Your task to perform on an android device: Do I have any events today? Image 0: 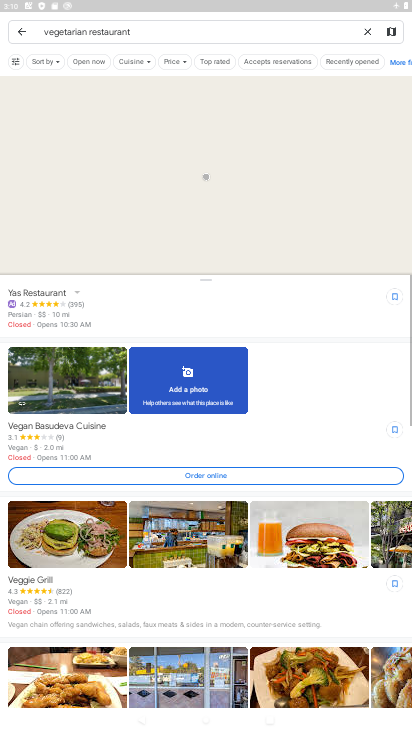
Step 0: press home button
Your task to perform on an android device: Do I have any events today? Image 1: 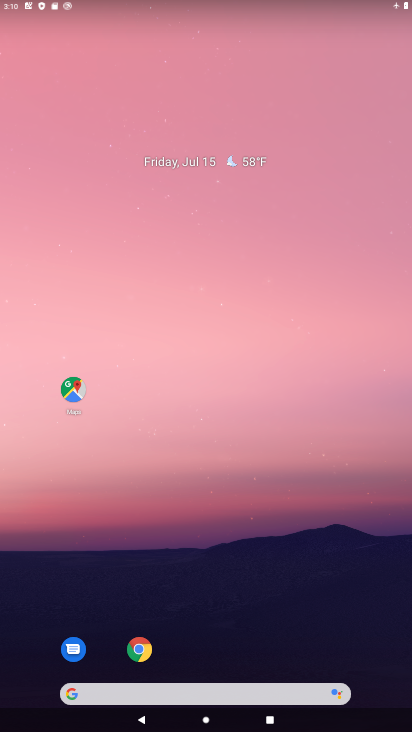
Step 1: drag from (255, 699) to (245, 137)
Your task to perform on an android device: Do I have any events today? Image 2: 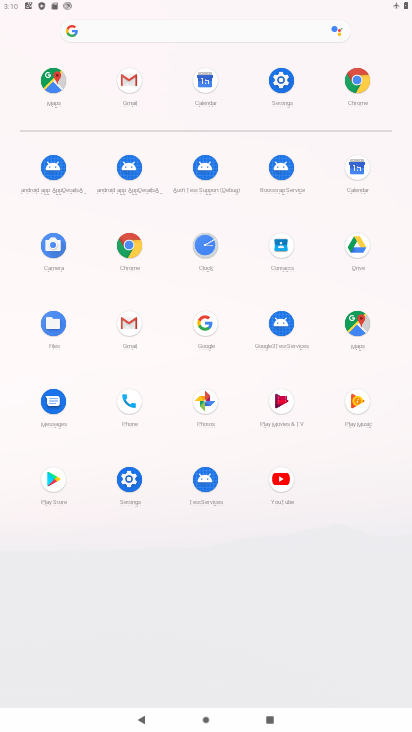
Step 2: click (358, 169)
Your task to perform on an android device: Do I have any events today? Image 3: 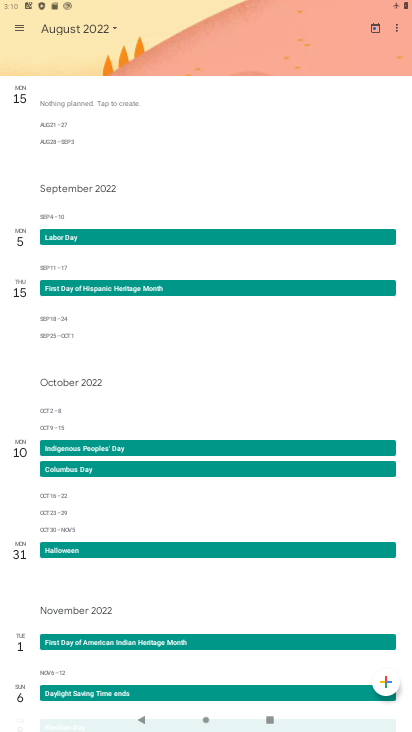
Step 3: click (111, 25)
Your task to perform on an android device: Do I have any events today? Image 4: 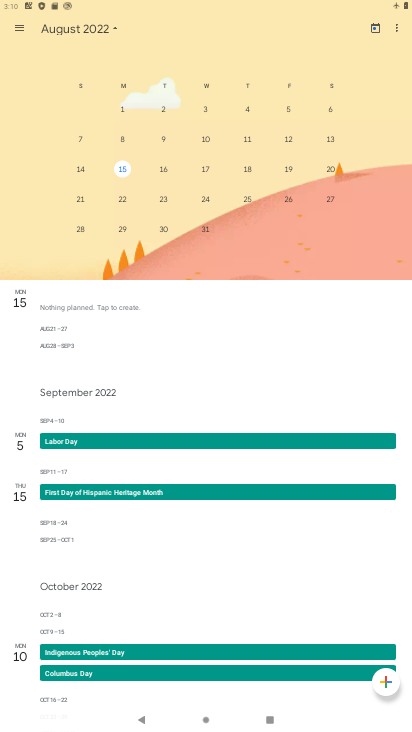
Step 4: drag from (81, 172) to (405, 335)
Your task to perform on an android device: Do I have any events today? Image 5: 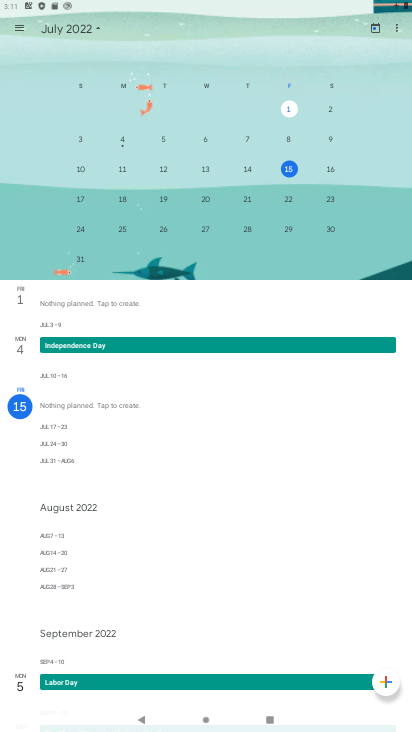
Step 5: click (286, 168)
Your task to perform on an android device: Do I have any events today? Image 6: 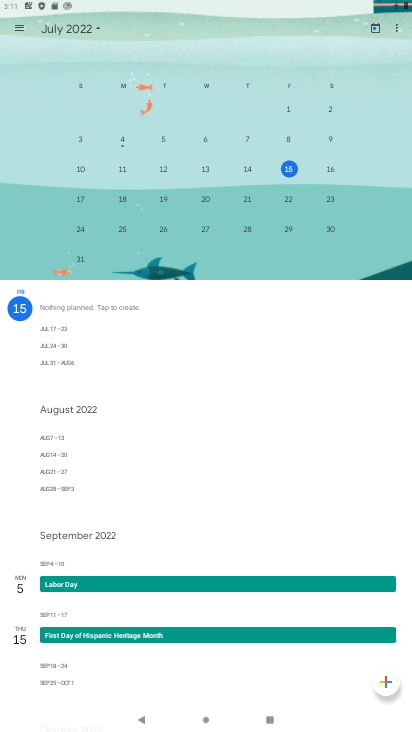
Step 6: click (18, 23)
Your task to perform on an android device: Do I have any events today? Image 7: 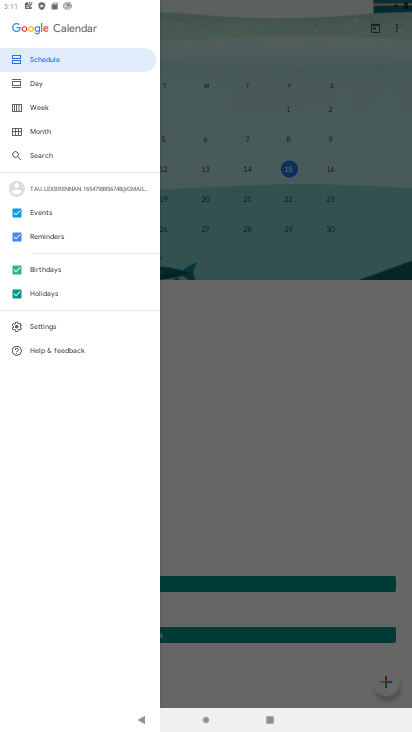
Step 7: click (21, 294)
Your task to perform on an android device: Do I have any events today? Image 8: 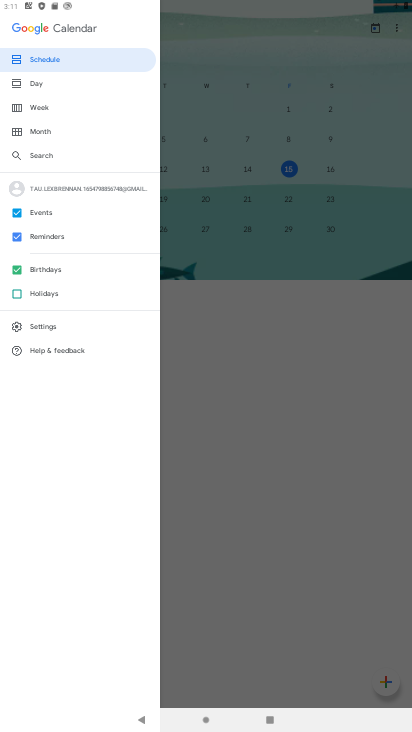
Step 8: click (15, 268)
Your task to perform on an android device: Do I have any events today? Image 9: 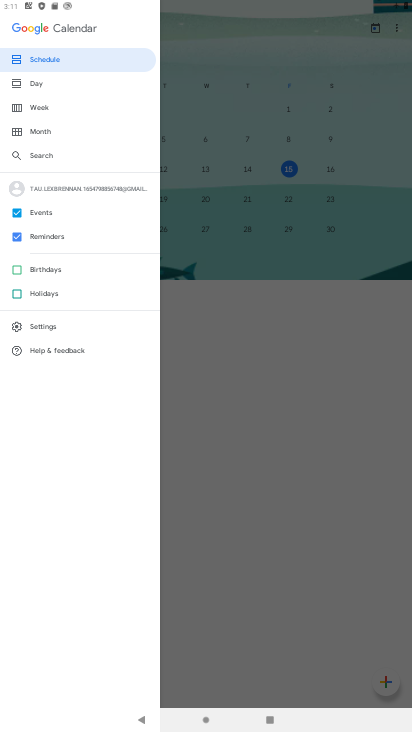
Step 9: click (19, 233)
Your task to perform on an android device: Do I have any events today? Image 10: 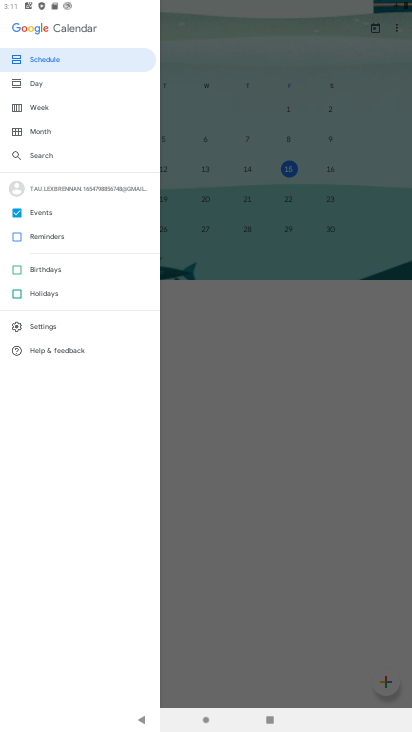
Step 10: click (286, 166)
Your task to perform on an android device: Do I have any events today? Image 11: 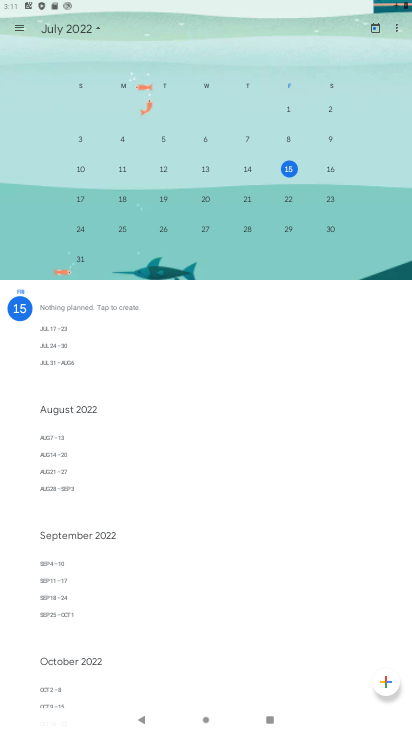
Step 11: click (289, 168)
Your task to perform on an android device: Do I have any events today? Image 12: 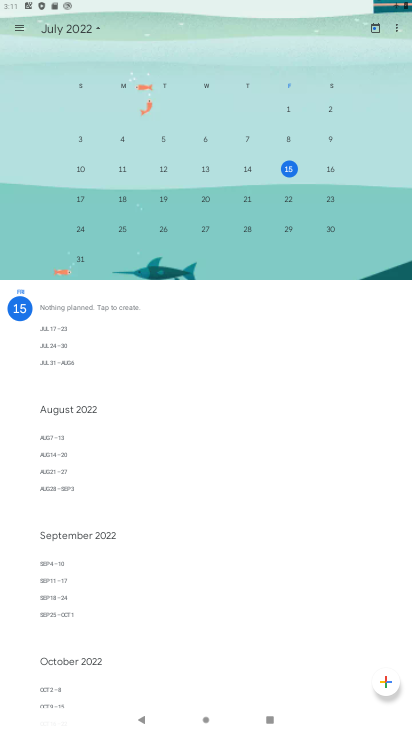
Step 12: click (289, 167)
Your task to perform on an android device: Do I have any events today? Image 13: 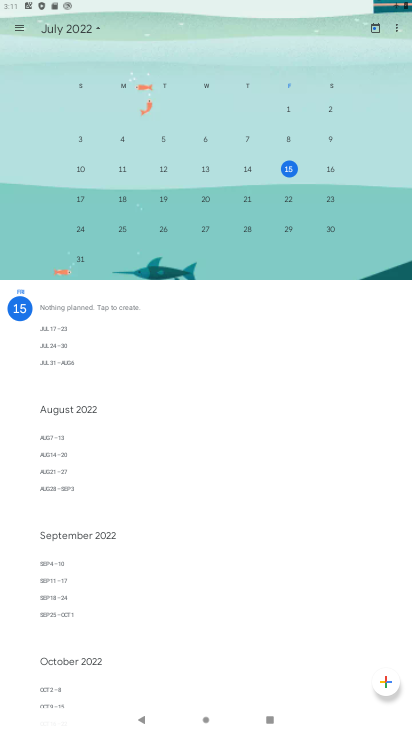
Step 13: click (29, 308)
Your task to perform on an android device: Do I have any events today? Image 14: 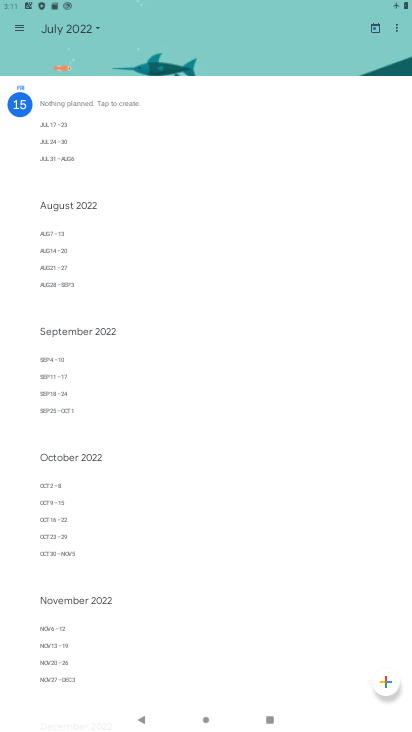
Step 14: task complete